Your task to perform on an android device: toggle location history Image 0: 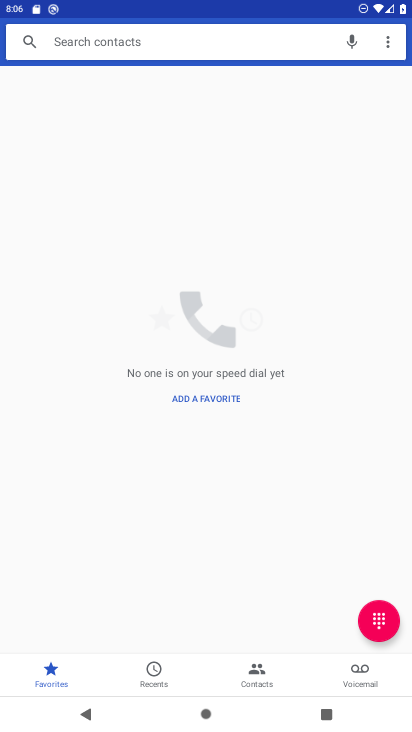
Step 0: press home button
Your task to perform on an android device: toggle location history Image 1: 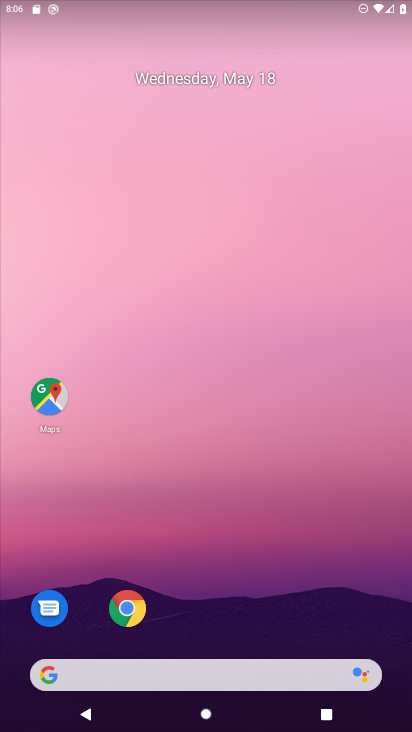
Step 1: drag from (308, 592) to (297, 4)
Your task to perform on an android device: toggle location history Image 2: 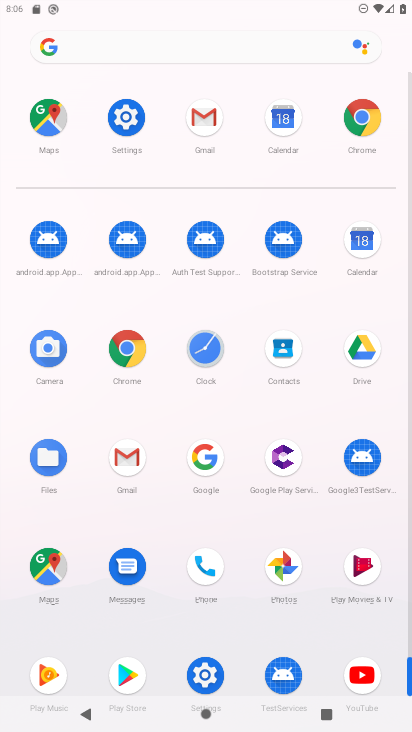
Step 2: click (130, 133)
Your task to perform on an android device: toggle location history Image 3: 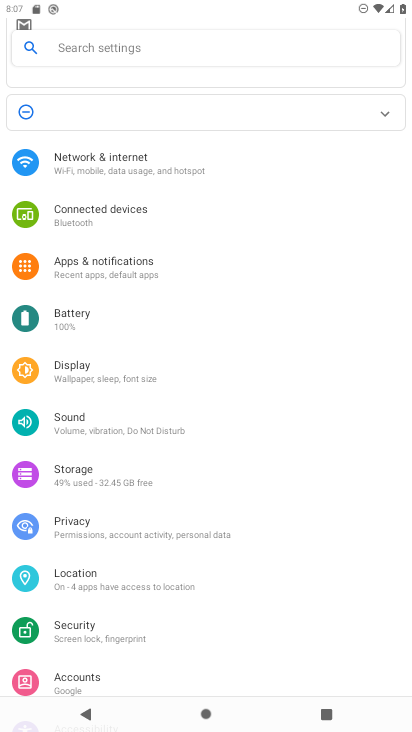
Step 3: drag from (294, 636) to (260, 259)
Your task to perform on an android device: toggle location history Image 4: 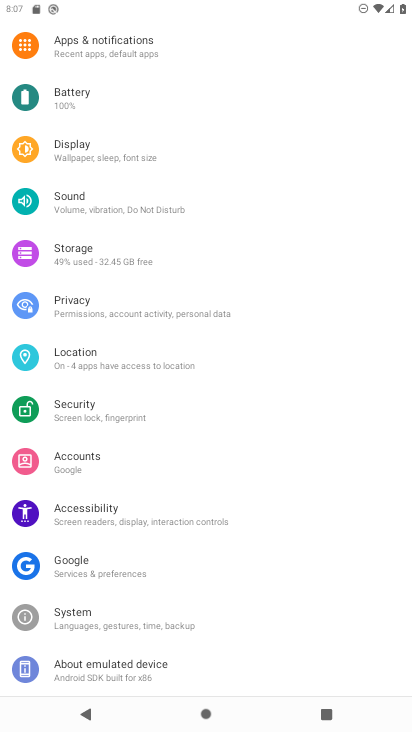
Step 4: click (58, 359)
Your task to perform on an android device: toggle location history Image 5: 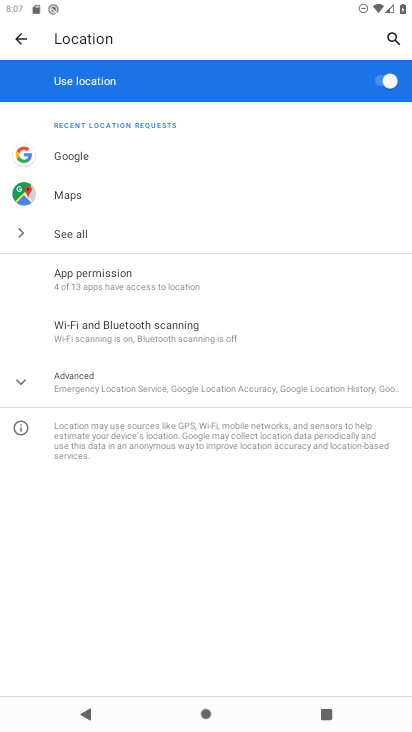
Step 5: click (155, 381)
Your task to perform on an android device: toggle location history Image 6: 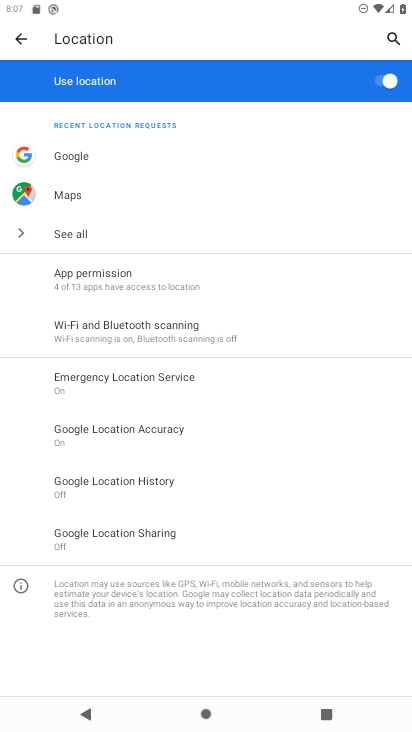
Step 6: click (189, 485)
Your task to perform on an android device: toggle location history Image 7: 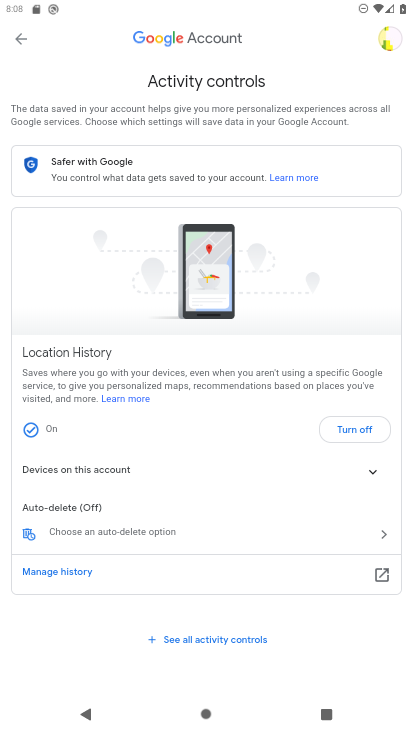
Step 7: click (363, 430)
Your task to perform on an android device: toggle location history Image 8: 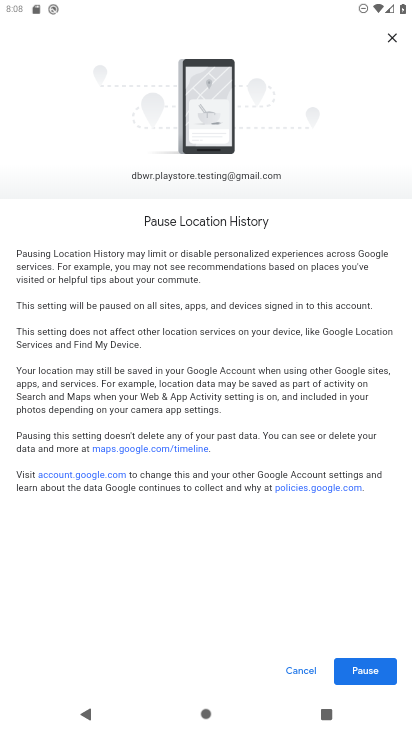
Step 8: click (364, 665)
Your task to perform on an android device: toggle location history Image 9: 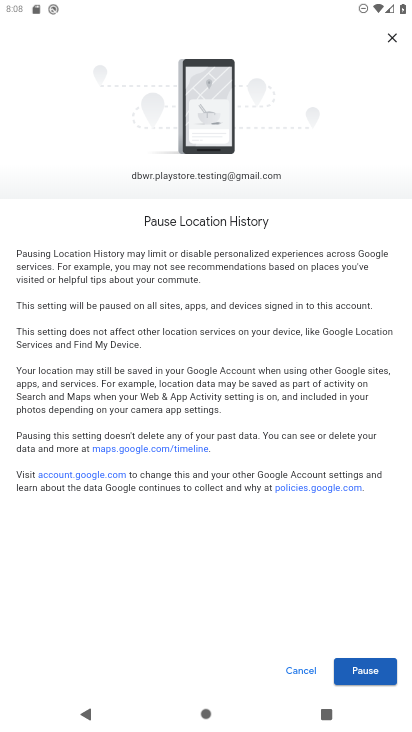
Step 9: click (382, 669)
Your task to perform on an android device: toggle location history Image 10: 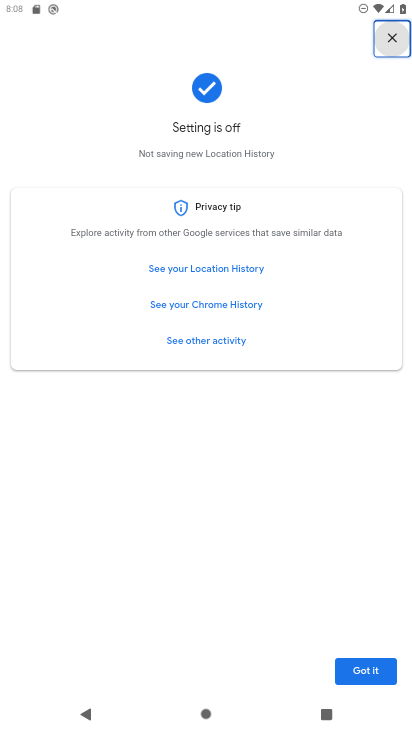
Step 10: click (360, 674)
Your task to perform on an android device: toggle location history Image 11: 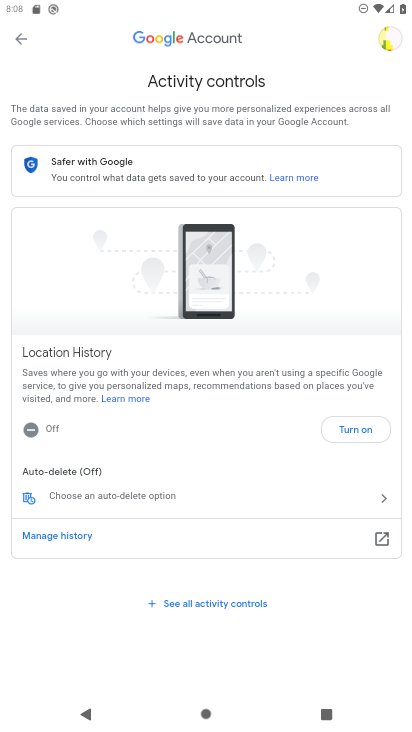
Step 11: task complete